Your task to perform on an android device: Open Yahoo.com Image 0: 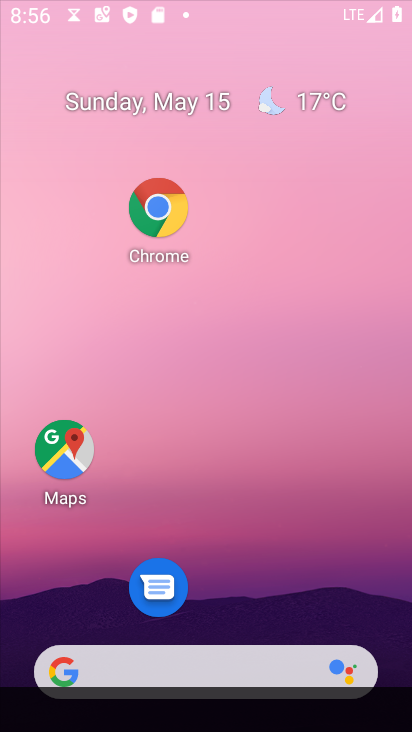
Step 0: click (195, 273)
Your task to perform on an android device: Open Yahoo.com Image 1: 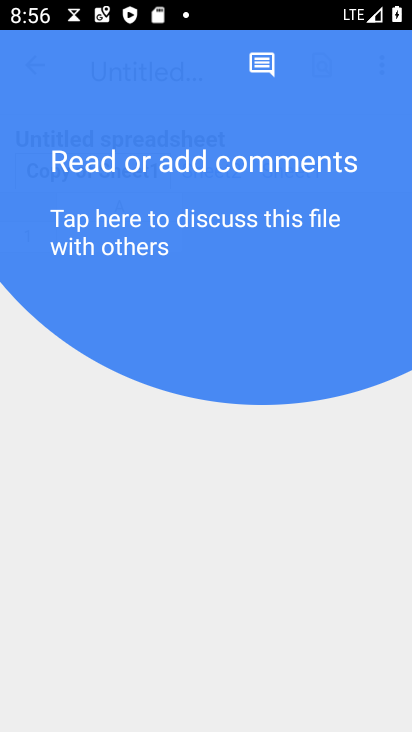
Step 1: press back button
Your task to perform on an android device: Open Yahoo.com Image 2: 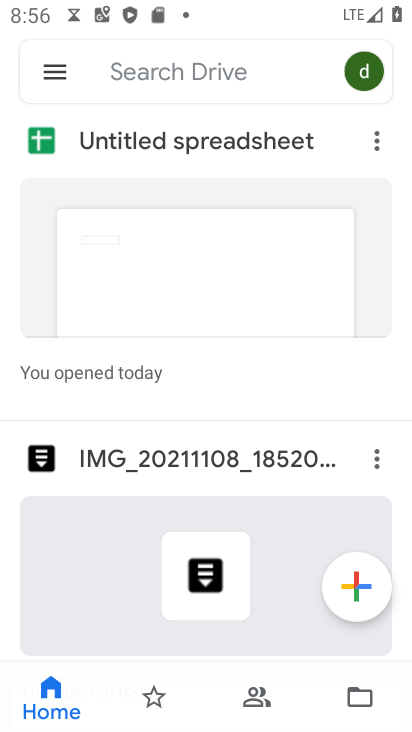
Step 2: press back button
Your task to perform on an android device: Open Yahoo.com Image 3: 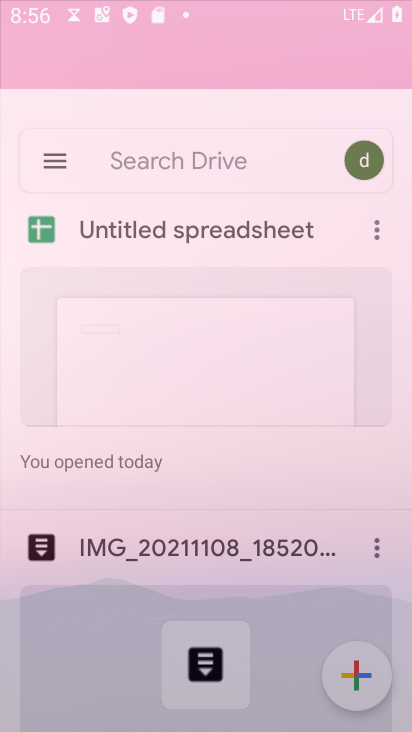
Step 3: press home button
Your task to perform on an android device: Open Yahoo.com Image 4: 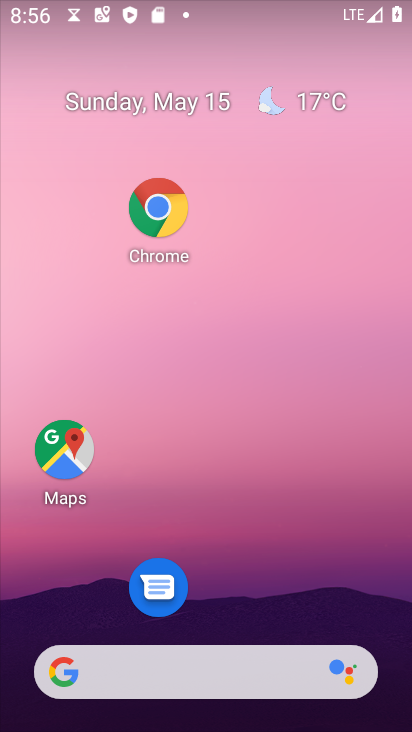
Step 4: drag from (347, 599) to (234, 134)
Your task to perform on an android device: Open Yahoo.com Image 5: 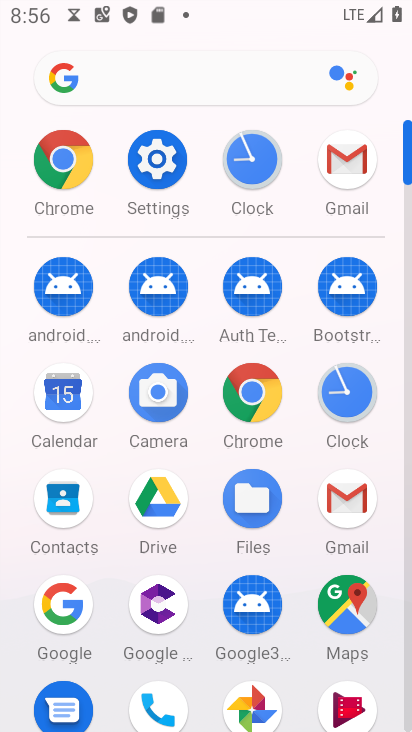
Step 5: click (56, 160)
Your task to perform on an android device: Open Yahoo.com Image 6: 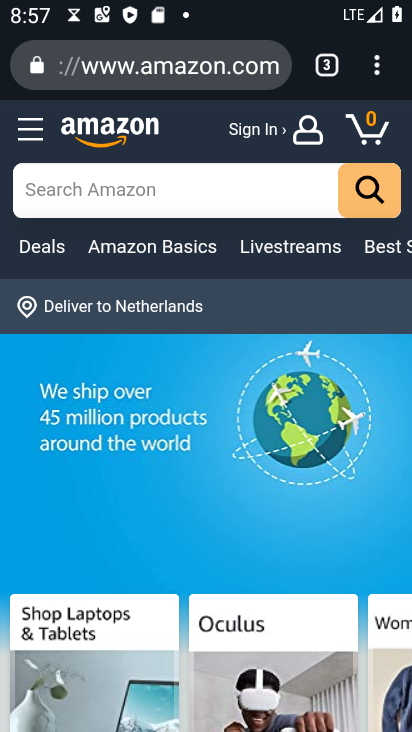
Step 6: press back button
Your task to perform on an android device: Open Yahoo.com Image 7: 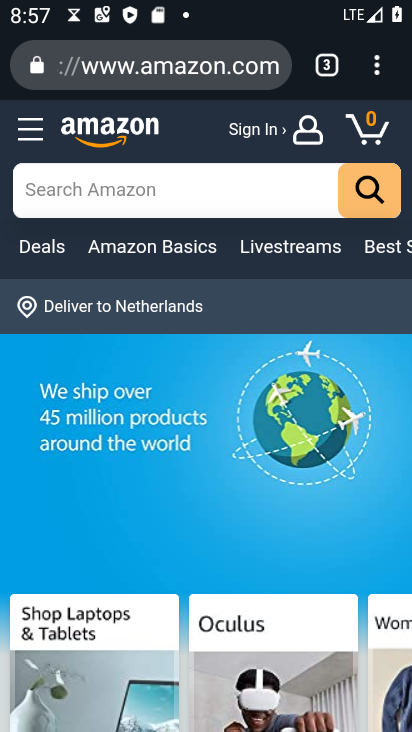
Step 7: press home button
Your task to perform on an android device: Open Yahoo.com Image 8: 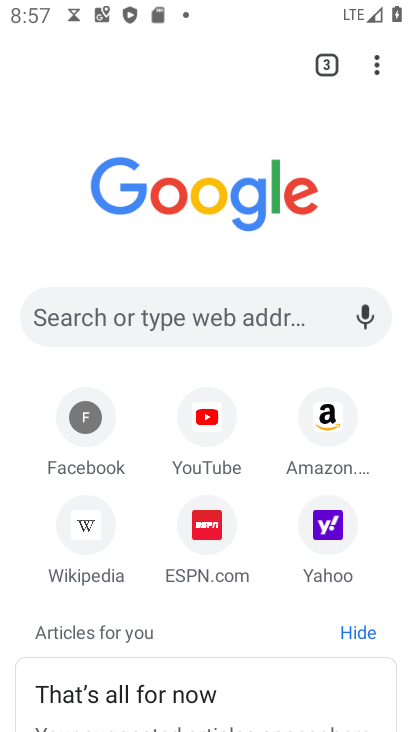
Step 8: press home button
Your task to perform on an android device: Open Yahoo.com Image 9: 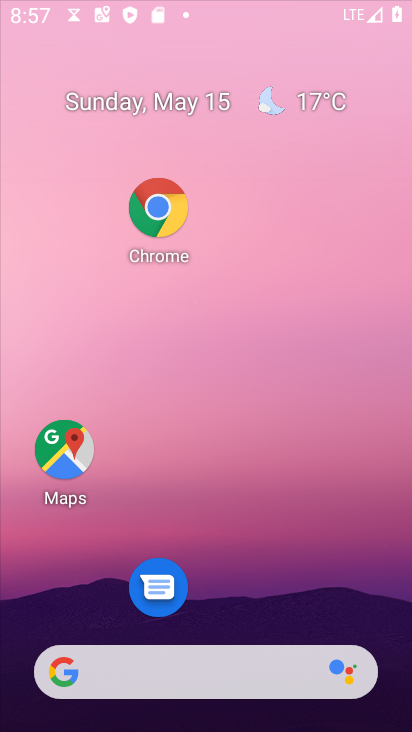
Step 9: press home button
Your task to perform on an android device: Open Yahoo.com Image 10: 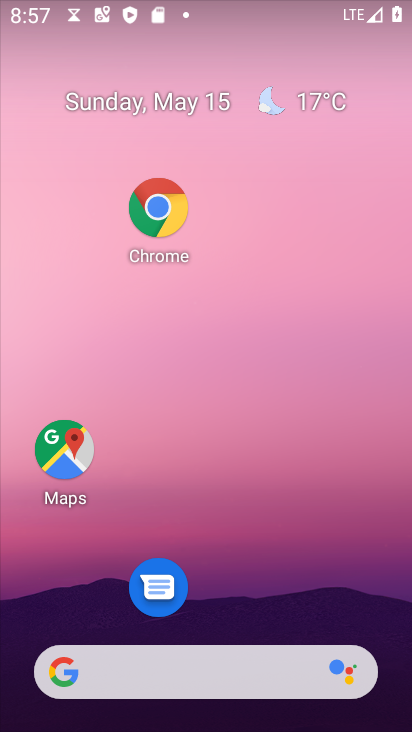
Step 10: drag from (305, 612) to (209, 150)
Your task to perform on an android device: Open Yahoo.com Image 11: 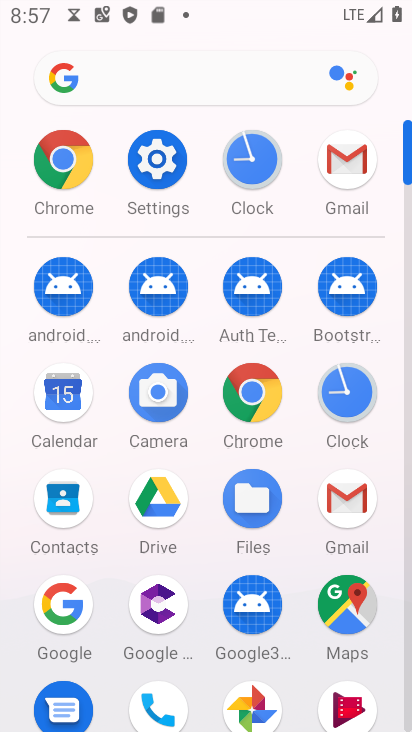
Step 11: click (259, 371)
Your task to perform on an android device: Open Yahoo.com Image 12: 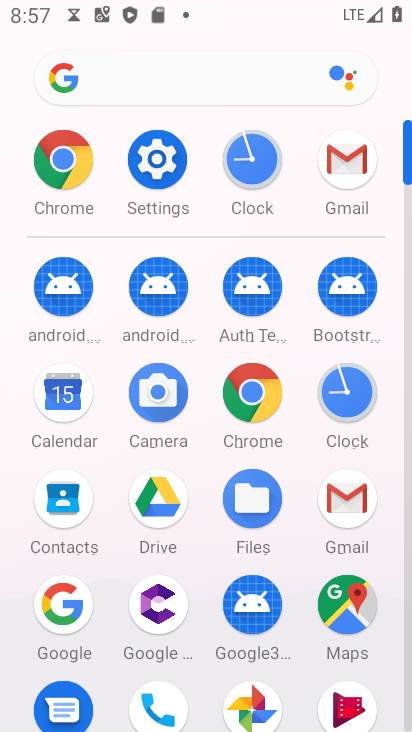
Step 12: click (254, 368)
Your task to perform on an android device: Open Yahoo.com Image 13: 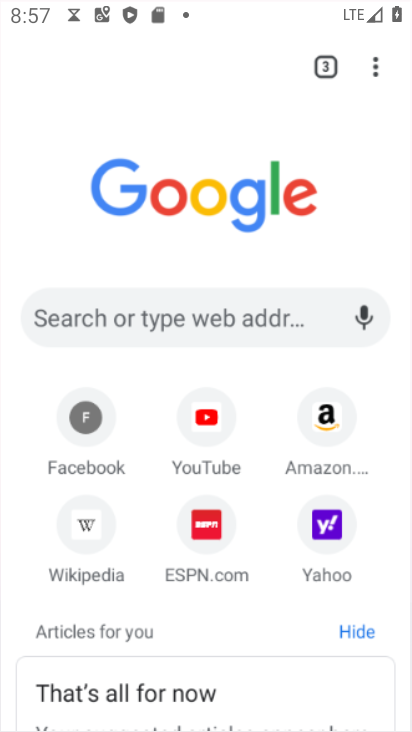
Step 13: click (240, 360)
Your task to perform on an android device: Open Yahoo.com Image 14: 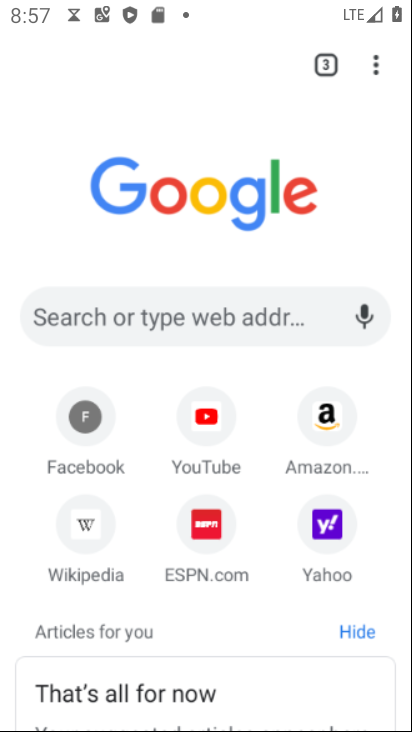
Step 14: click (240, 360)
Your task to perform on an android device: Open Yahoo.com Image 15: 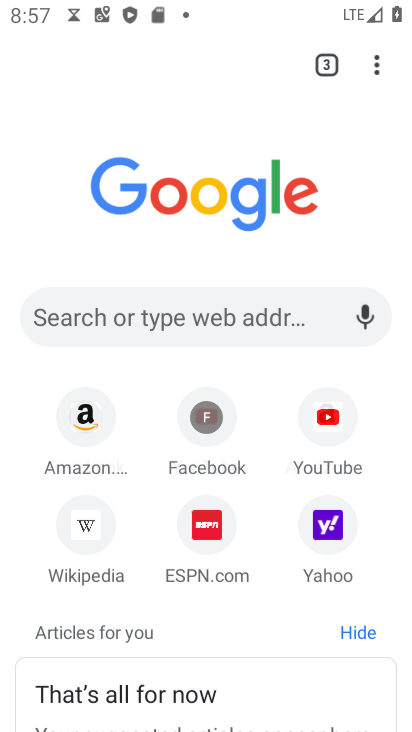
Step 15: click (241, 359)
Your task to perform on an android device: Open Yahoo.com Image 16: 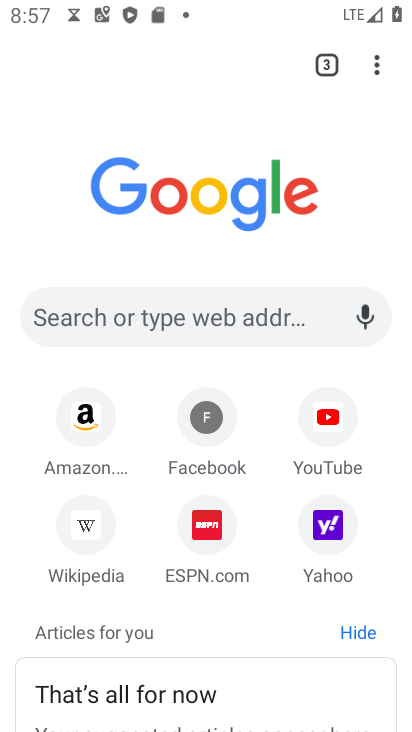
Step 16: click (317, 528)
Your task to perform on an android device: Open Yahoo.com Image 17: 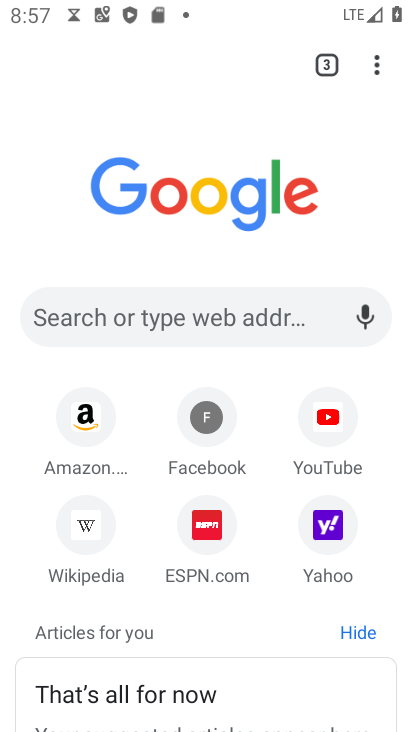
Step 17: click (322, 519)
Your task to perform on an android device: Open Yahoo.com Image 18: 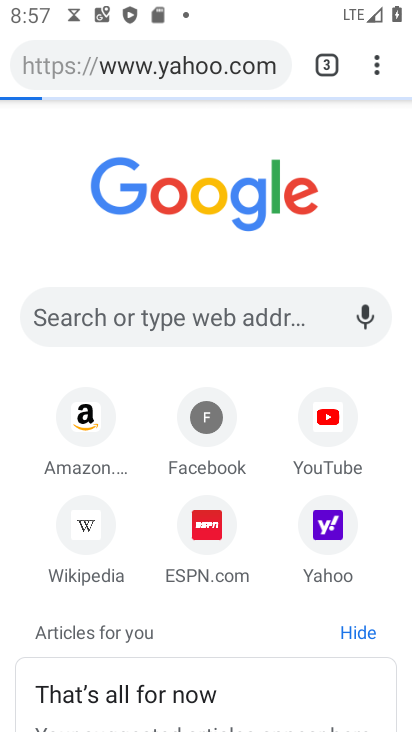
Step 18: click (345, 505)
Your task to perform on an android device: Open Yahoo.com Image 19: 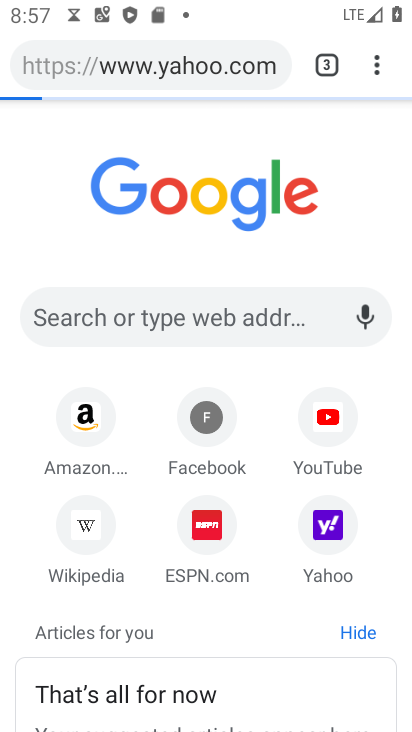
Step 19: click (345, 505)
Your task to perform on an android device: Open Yahoo.com Image 20: 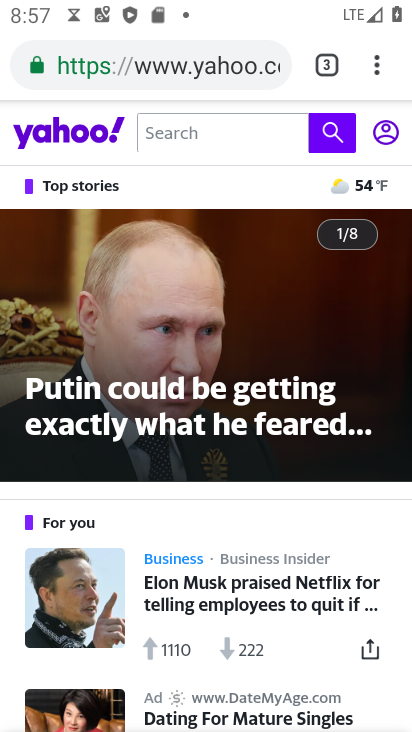
Step 20: task complete